Your task to perform on an android device: Open Amazon Image 0: 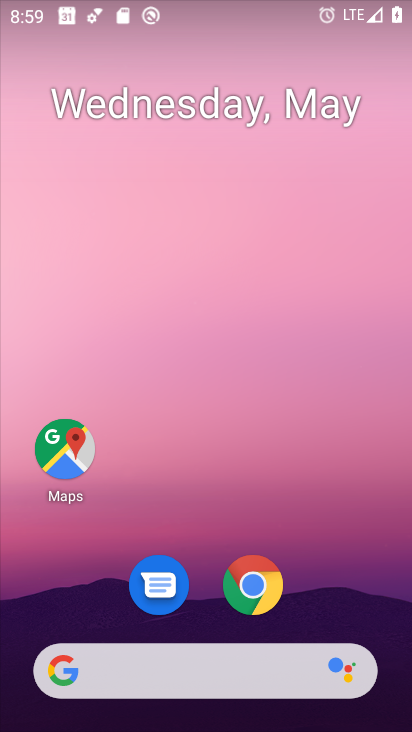
Step 0: click (269, 682)
Your task to perform on an android device: Open Amazon Image 1: 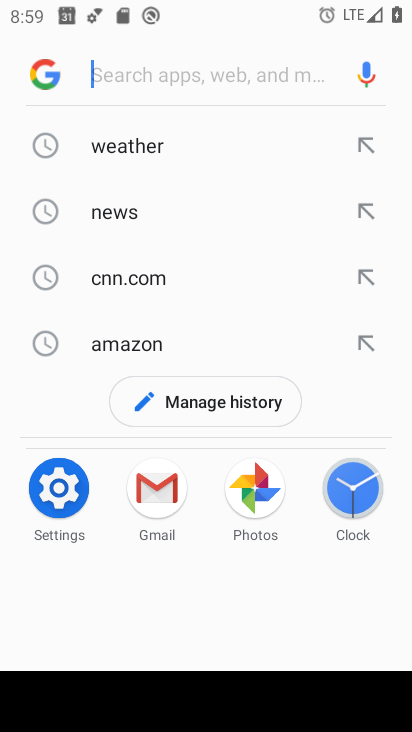
Step 1: click (99, 340)
Your task to perform on an android device: Open Amazon Image 2: 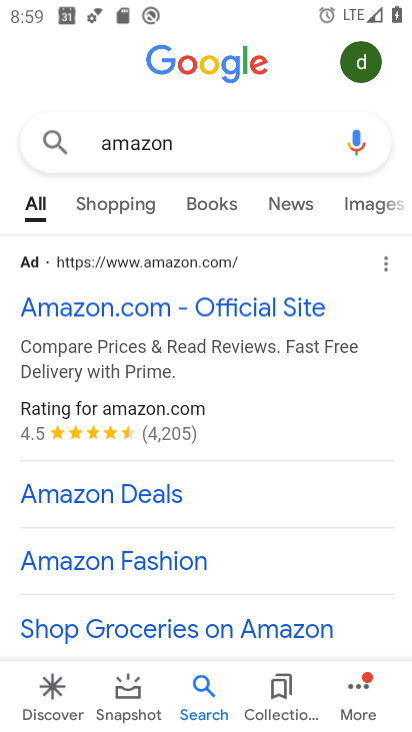
Step 2: click (90, 302)
Your task to perform on an android device: Open Amazon Image 3: 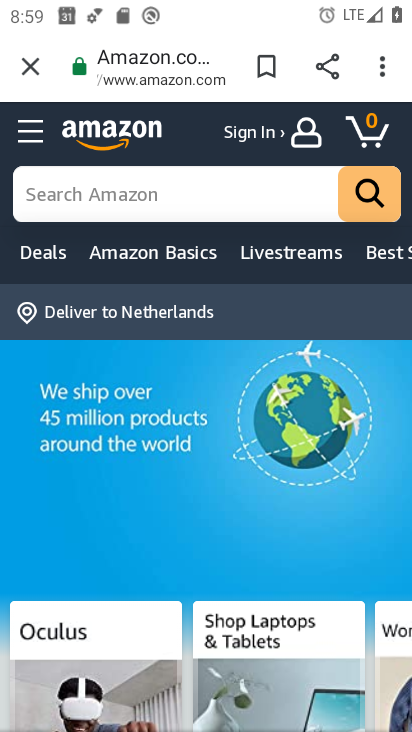
Step 3: task complete